Your task to perform on an android device: change the clock style Image 0: 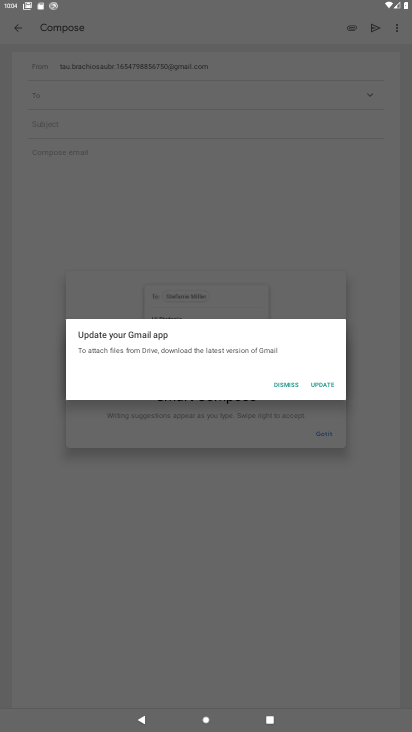
Step 0: press home button
Your task to perform on an android device: change the clock style Image 1: 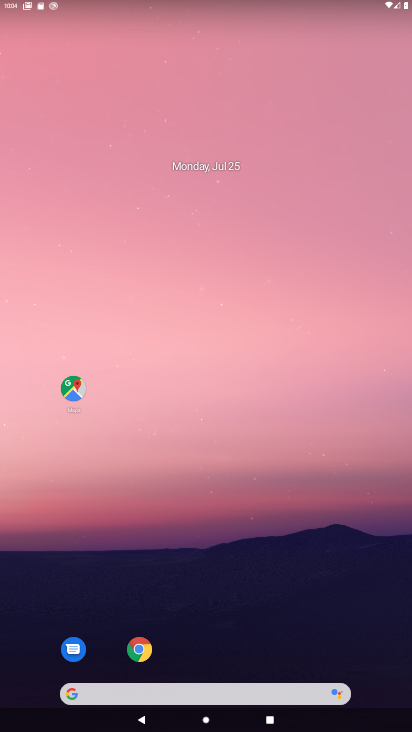
Step 1: drag from (386, 666) to (340, 191)
Your task to perform on an android device: change the clock style Image 2: 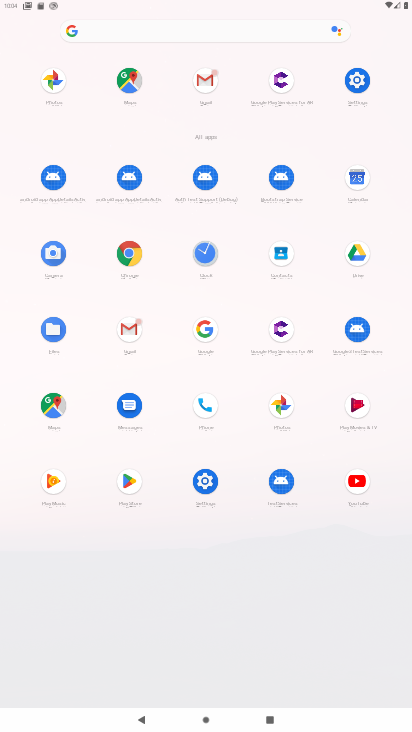
Step 2: click (205, 252)
Your task to perform on an android device: change the clock style Image 3: 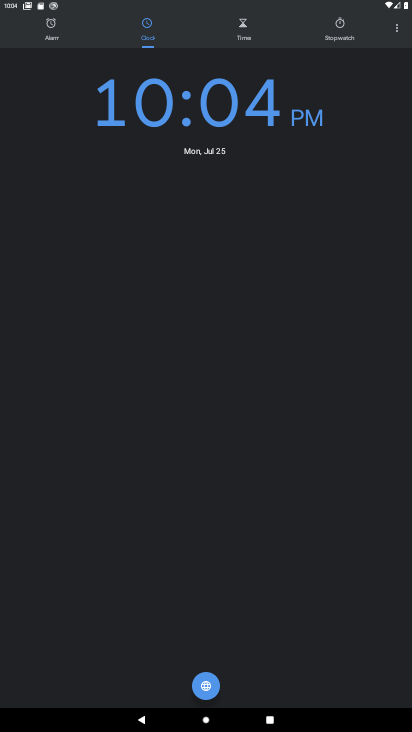
Step 3: click (400, 33)
Your task to perform on an android device: change the clock style Image 4: 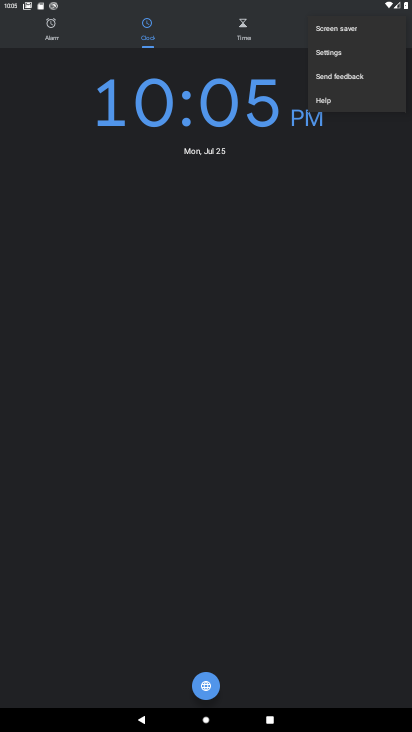
Step 4: click (327, 52)
Your task to perform on an android device: change the clock style Image 5: 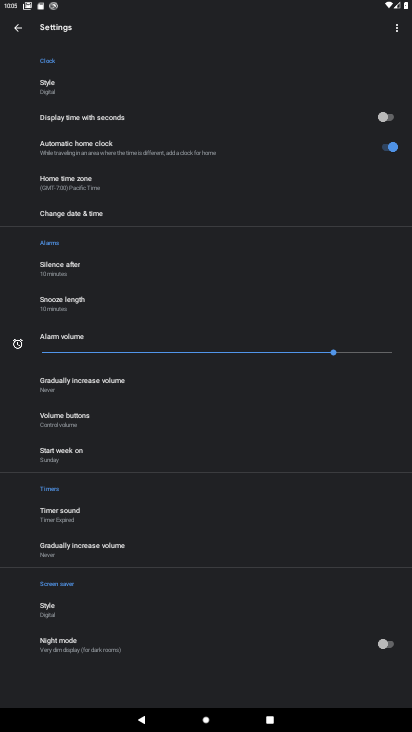
Step 5: click (40, 82)
Your task to perform on an android device: change the clock style Image 6: 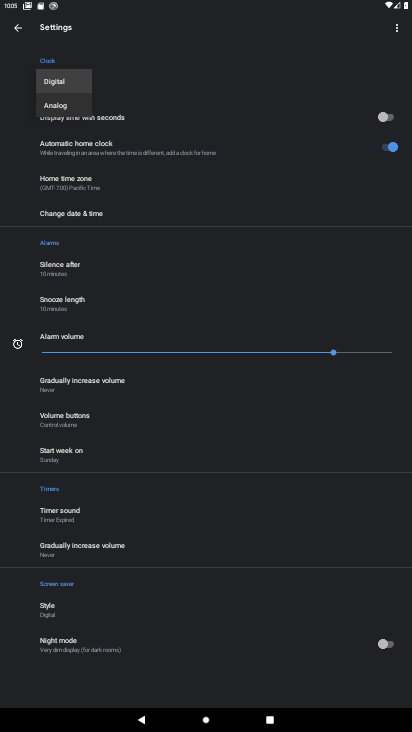
Step 6: click (52, 101)
Your task to perform on an android device: change the clock style Image 7: 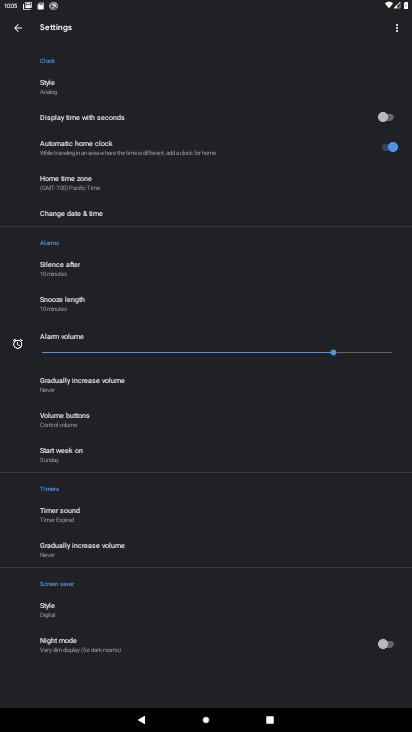
Step 7: task complete